Your task to perform on an android device: Turn on the flashlight Image 0: 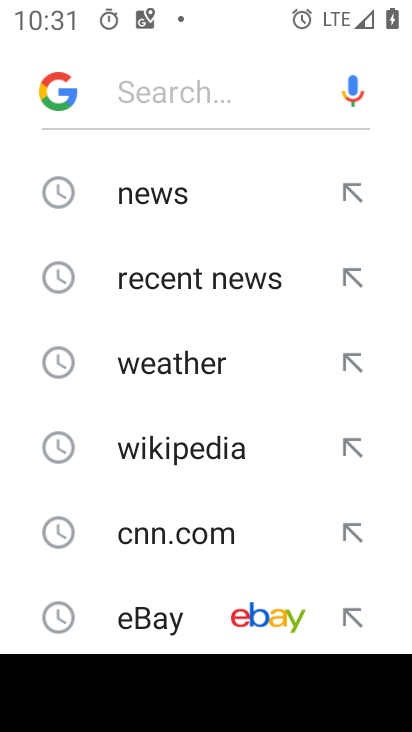
Step 0: press home button
Your task to perform on an android device: Turn on the flashlight Image 1: 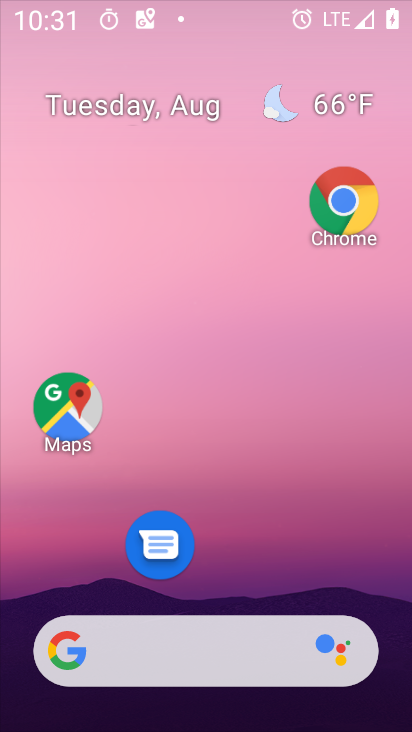
Step 1: drag from (233, 571) to (252, 155)
Your task to perform on an android device: Turn on the flashlight Image 2: 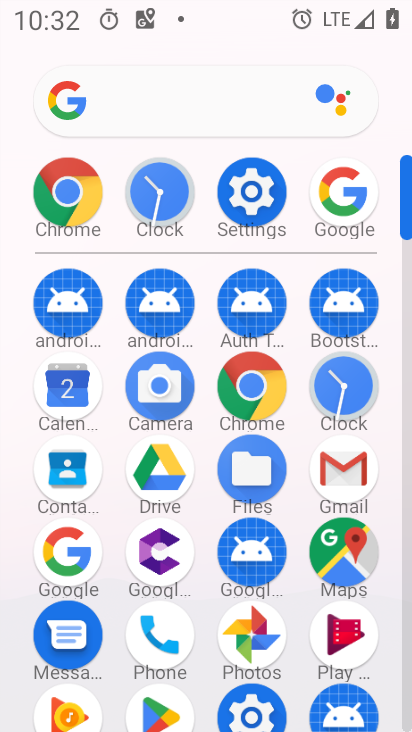
Step 2: click (274, 432)
Your task to perform on an android device: Turn on the flashlight Image 3: 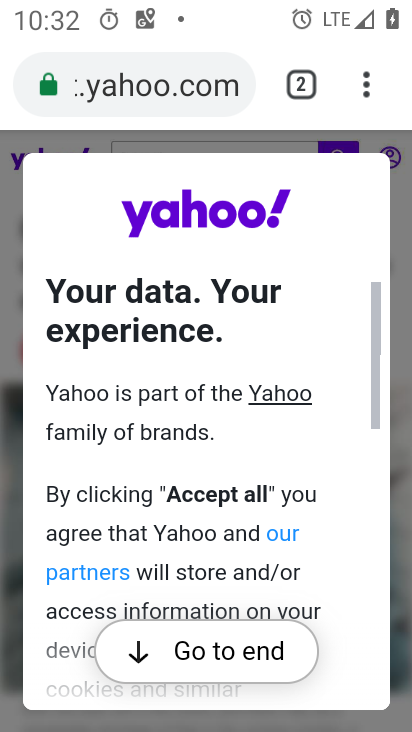
Step 3: task complete